Your task to perform on an android device: Search for seafood restaurants on Google Maps Image 0: 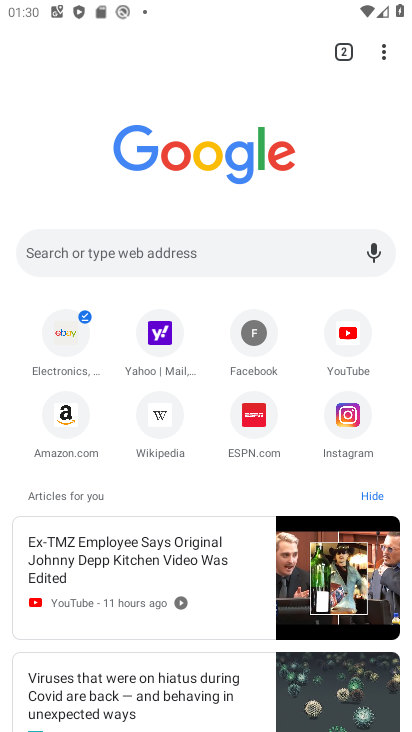
Step 0: press back button
Your task to perform on an android device: Search for seafood restaurants on Google Maps Image 1: 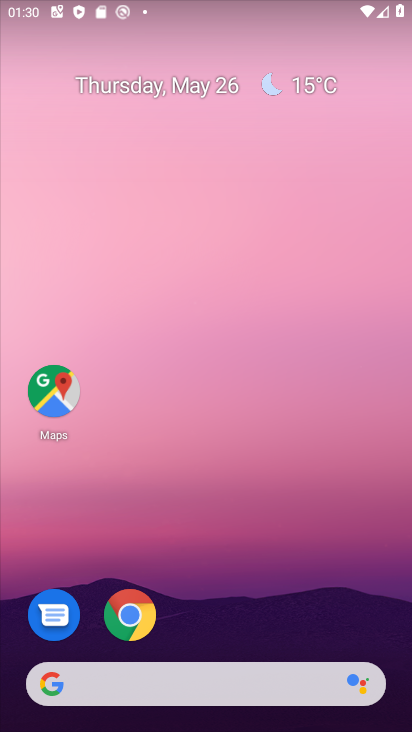
Step 1: click (52, 384)
Your task to perform on an android device: Search for seafood restaurants on Google Maps Image 2: 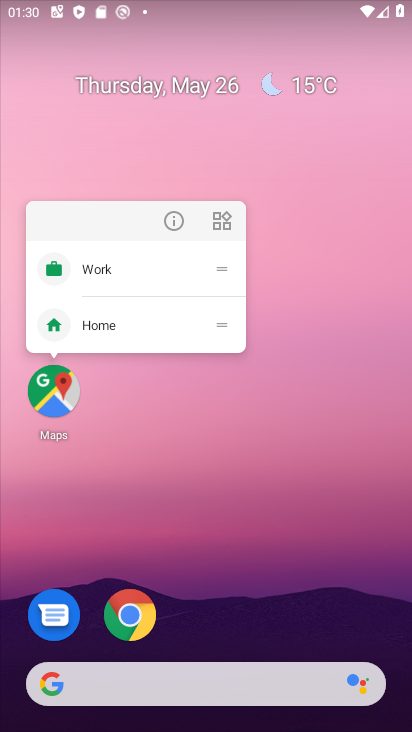
Step 2: click (51, 391)
Your task to perform on an android device: Search for seafood restaurants on Google Maps Image 3: 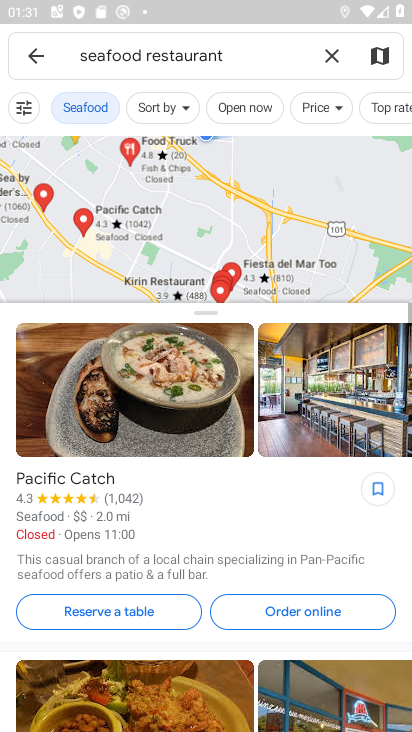
Step 3: task complete